Your task to perform on an android device: Go to Google maps Image 0: 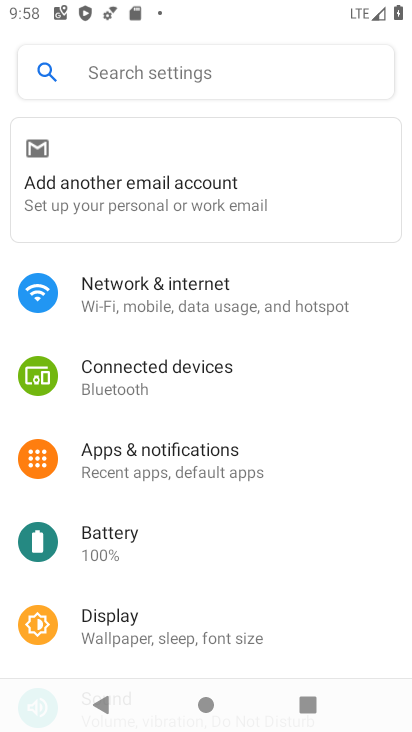
Step 0: drag from (192, 661) to (284, 210)
Your task to perform on an android device: Go to Google maps Image 1: 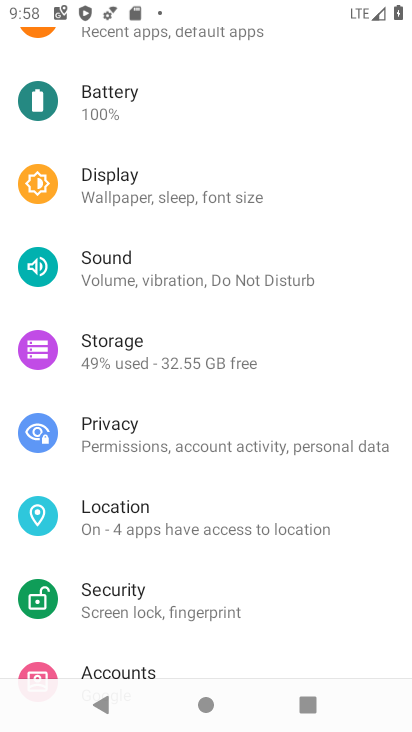
Step 1: drag from (205, 555) to (347, 193)
Your task to perform on an android device: Go to Google maps Image 2: 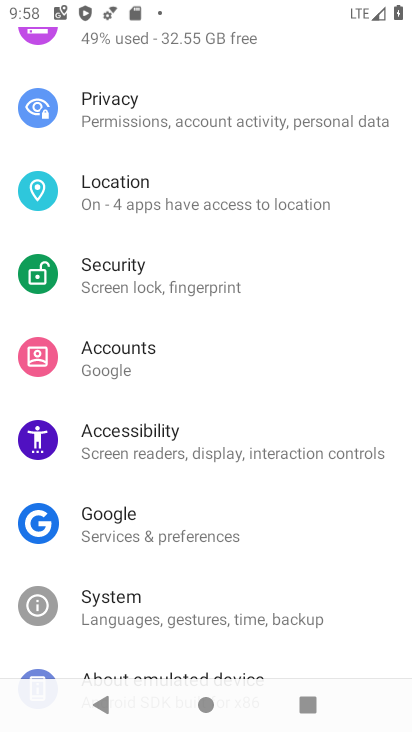
Step 2: press home button
Your task to perform on an android device: Go to Google maps Image 3: 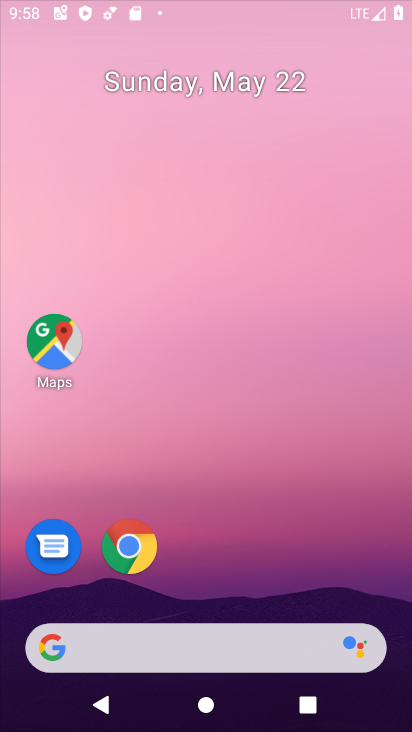
Step 3: drag from (131, 591) to (235, 127)
Your task to perform on an android device: Go to Google maps Image 4: 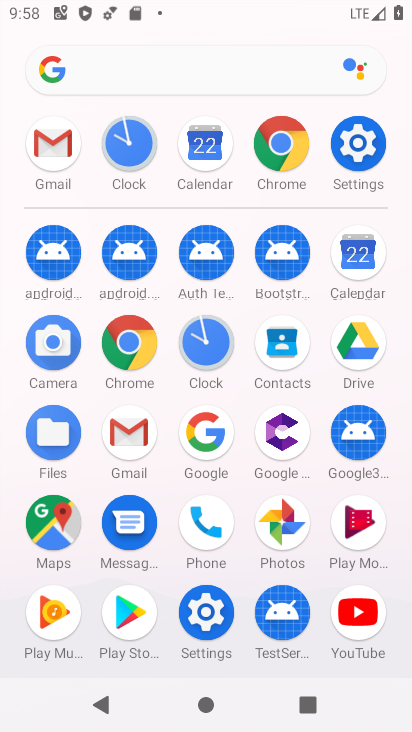
Step 4: click (207, 442)
Your task to perform on an android device: Go to Google maps Image 5: 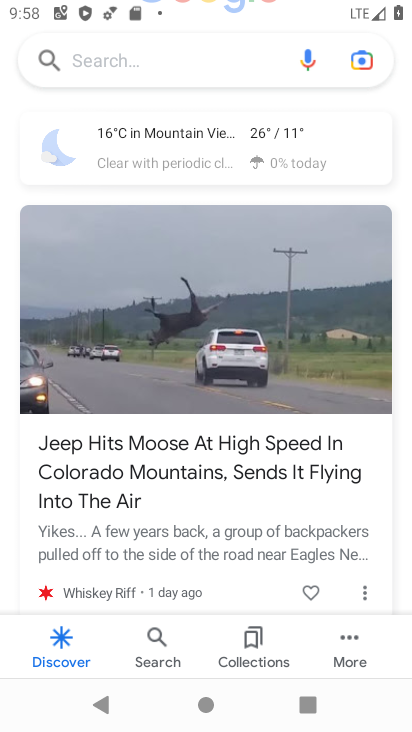
Step 5: drag from (253, 542) to (265, 212)
Your task to perform on an android device: Go to Google maps Image 6: 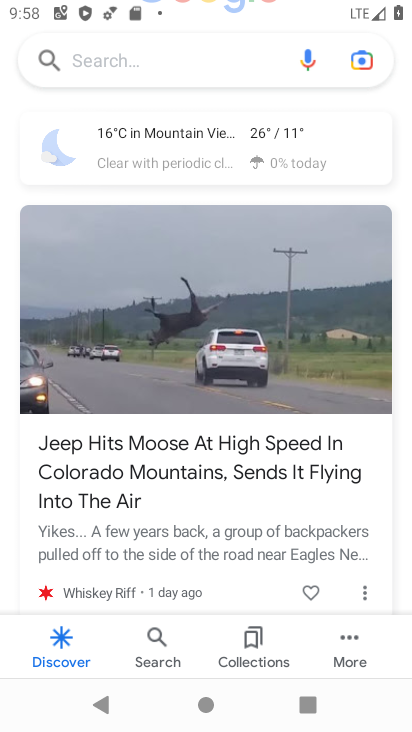
Step 6: drag from (202, 531) to (236, 256)
Your task to perform on an android device: Go to Google maps Image 7: 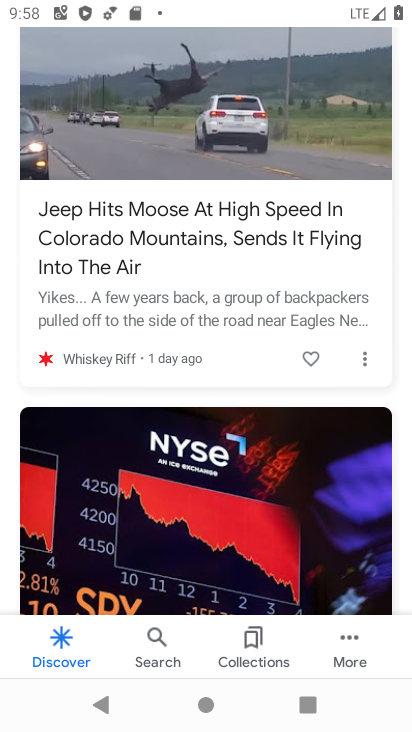
Step 7: drag from (229, 506) to (242, 235)
Your task to perform on an android device: Go to Google maps Image 8: 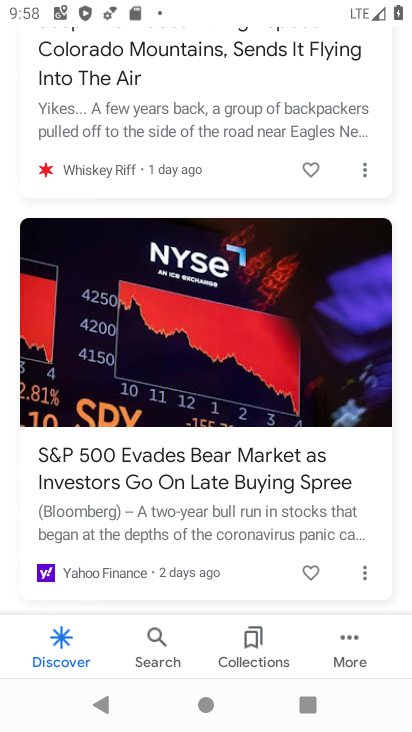
Step 8: drag from (247, 190) to (293, 691)
Your task to perform on an android device: Go to Google maps Image 9: 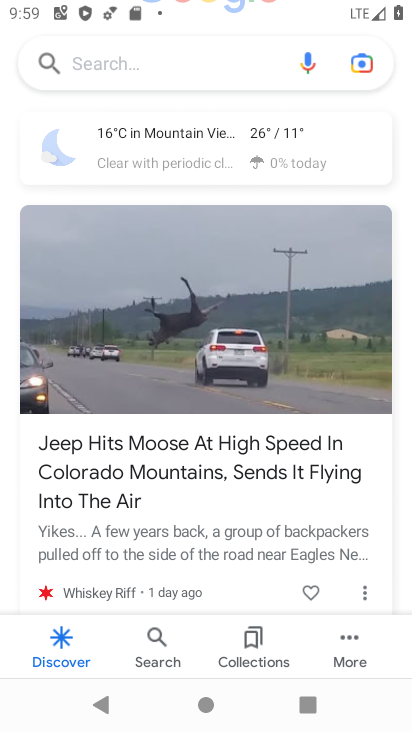
Step 9: press home button
Your task to perform on an android device: Go to Google maps Image 10: 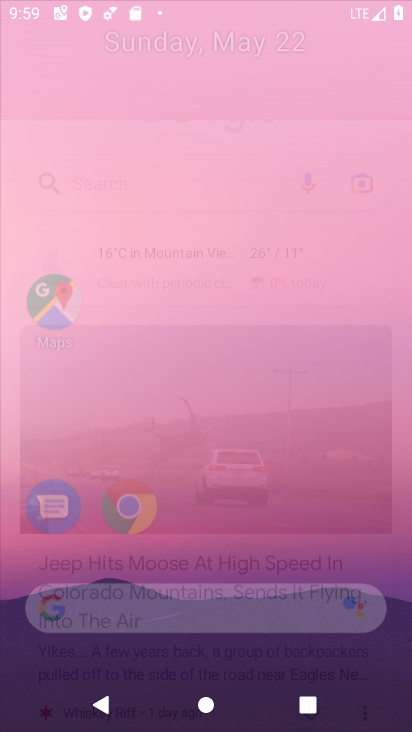
Step 10: drag from (165, 599) to (240, 181)
Your task to perform on an android device: Go to Google maps Image 11: 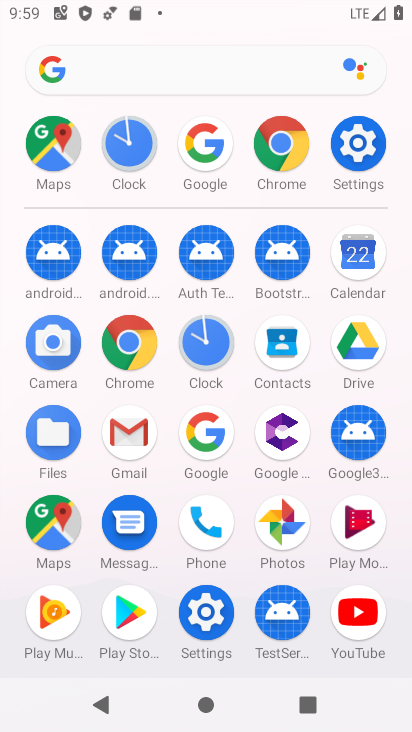
Step 11: click (60, 515)
Your task to perform on an android device: Go to Google maps Image 12: 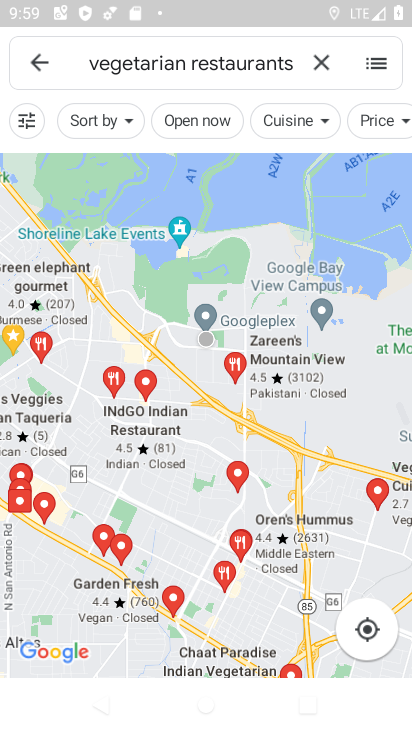
Step 12: drag from (215, 482) to (310, 141)
Your task to perform on an android device: Go to Google maps Image 13: 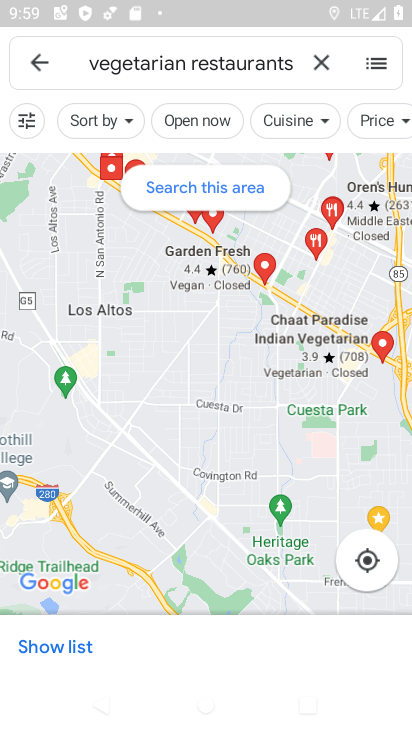
Step 13: click (53, 55)
Your task to perform on an android device: Go to Google maps Image 14: 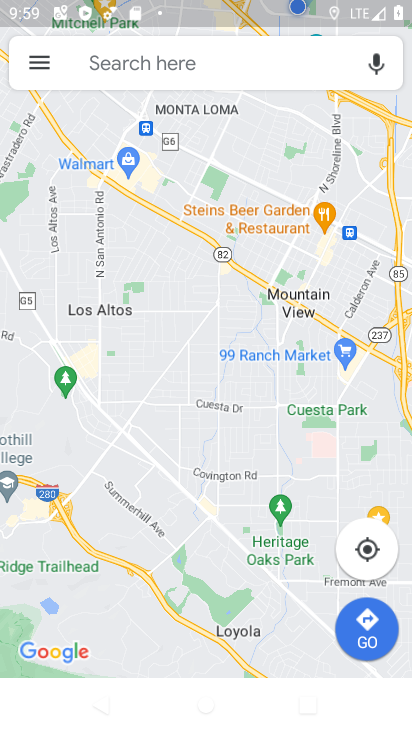
Step 14: task complete